Your task to perform on an android device: Play the last video I watched on Youtube Image 0: 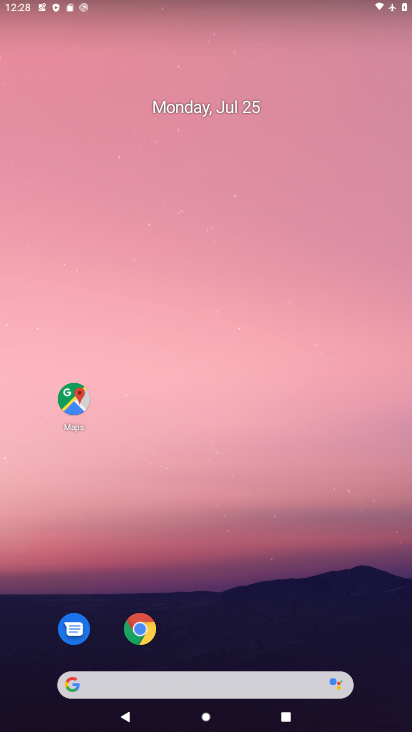
Step 0: drag from (282, 639) to (289, 83)
Your task to perform on an android device: Play the last video I watched on Youtube Image 1: 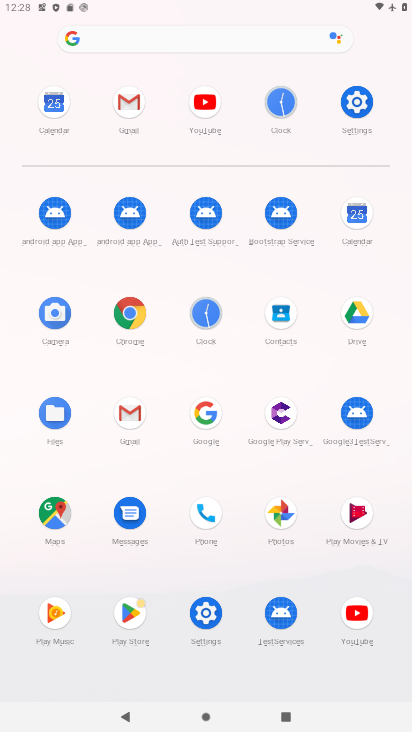
Step 1: click (351, 626)
Your task to perform on an android device: Play the last video I watched on Youtube Image 2: 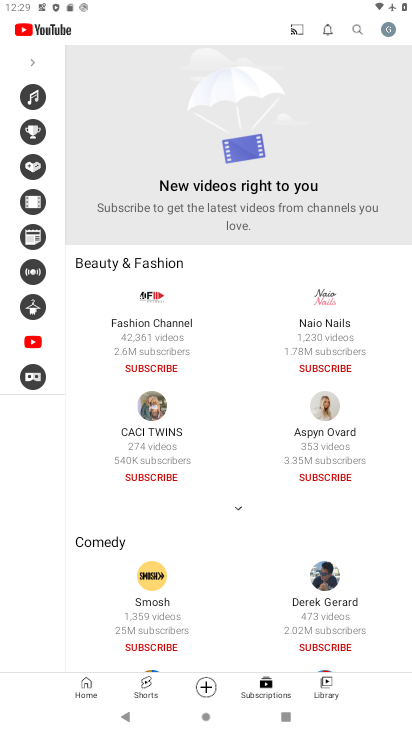
Step 2: click (325, 626)
Your task to perform on an android device: Play the last video I watched on Youtube Image 3: 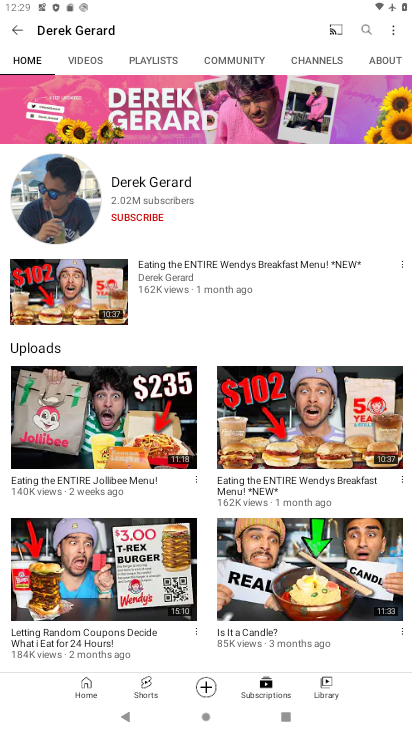
Step 3: task complete